Your task to perform on an android device: find which apps use the phone's location Image 0: 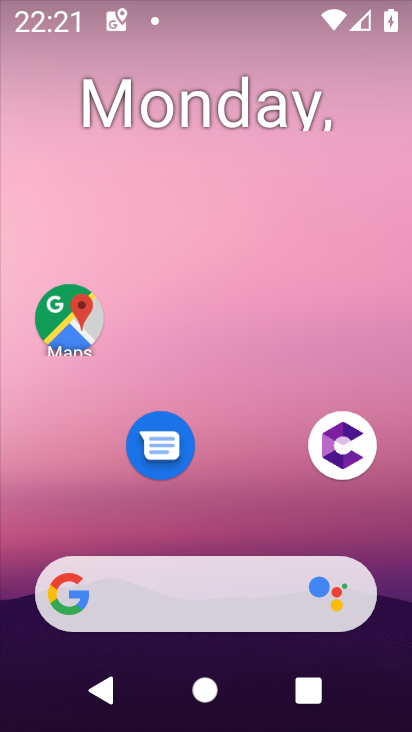
Step 0: drag from (226, 523) to (206, 167)
Your task to perform on an android device: find which apps use the phone's location Image 1: 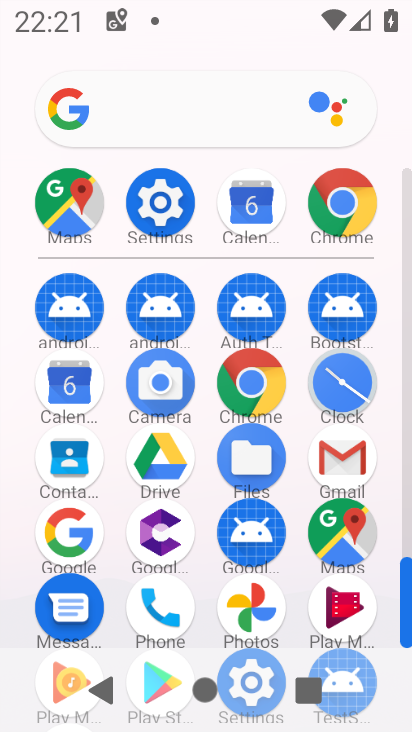
Step 1: click (162, 207)
Your task to perform on an android device: find which apps use the phone's location Image 2: 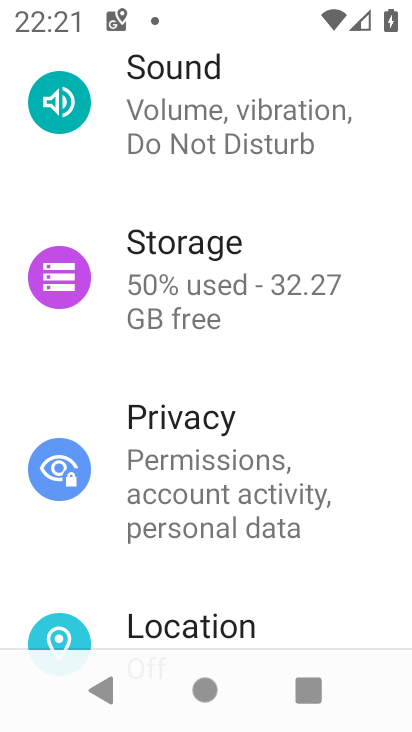
Step 2: click (146, 621)
Your task to perform on an android device: find which apps use the phone's location Image 3: 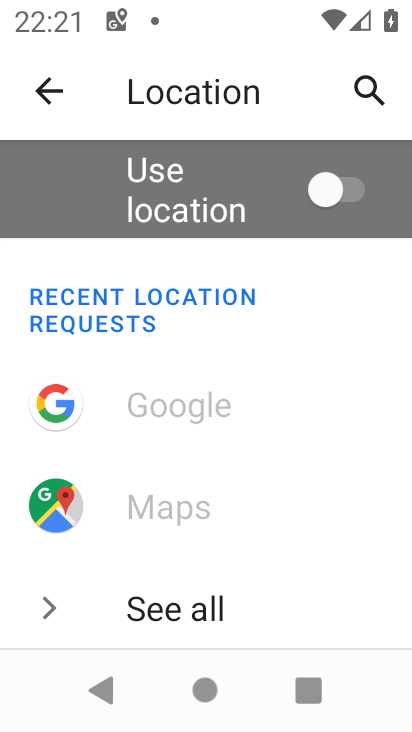
Step 3: drag from (98, 576) to (125, 298)
Your task to perform on an android device: find which apps use the phone's location Image 4: 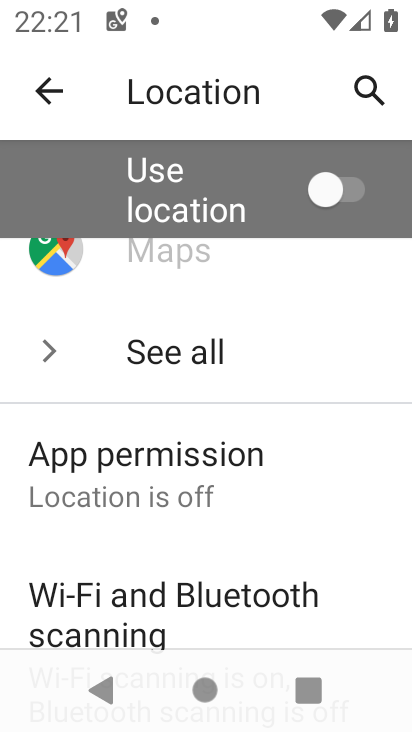
Step 4: click (120, 464)
Your task to perform on an android device: find which apps use the phone's location Image 5: 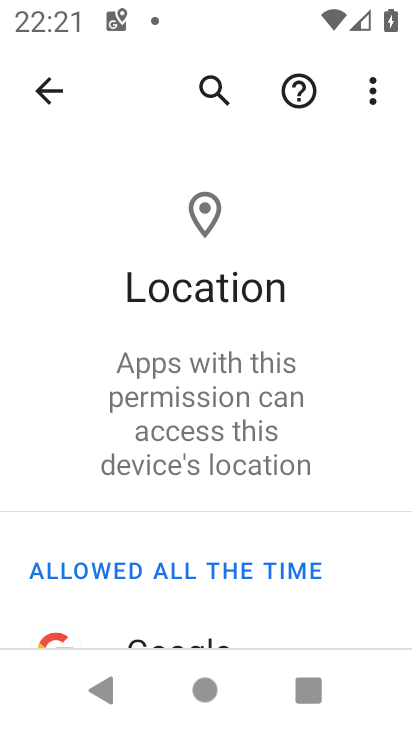
Step 5: task complete